Your task to perform on an android device: set an alarm Image 0: 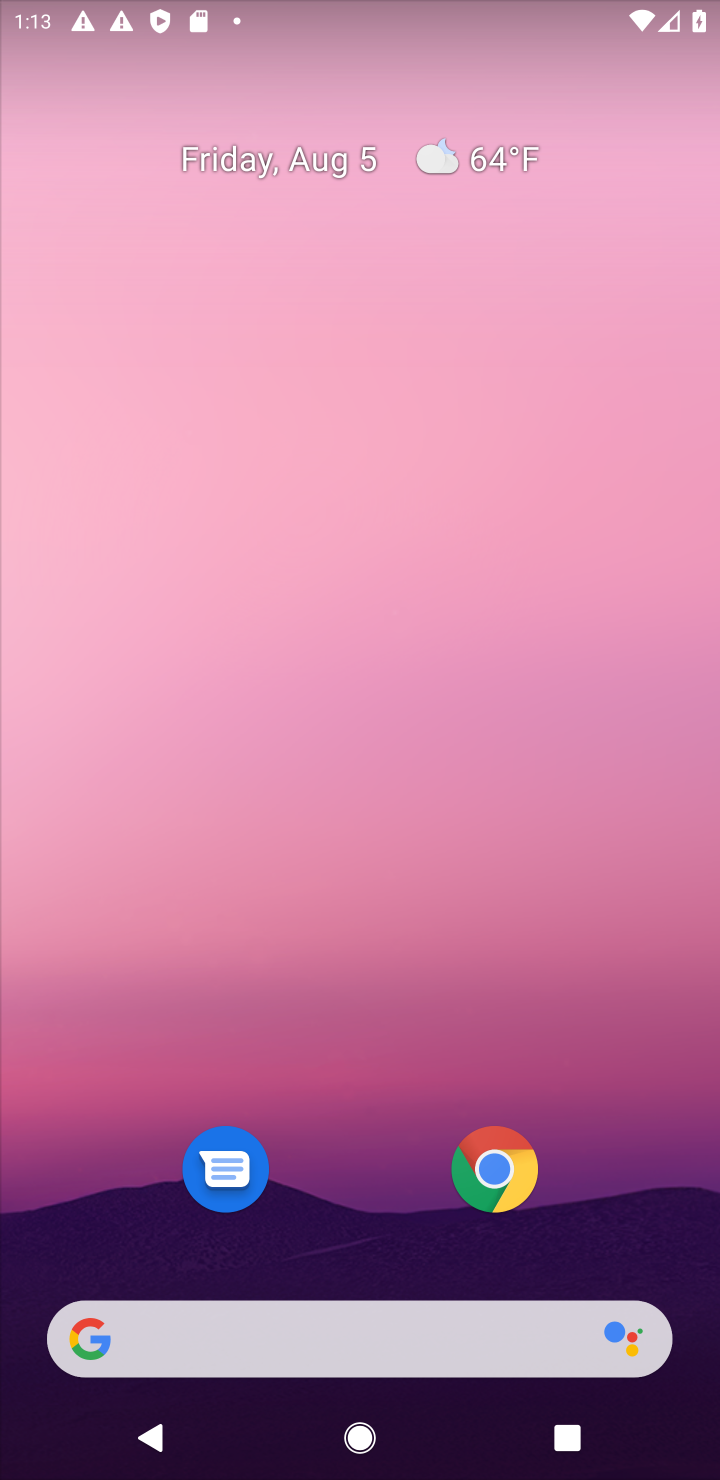
Step 0: drag from (356, 1149) to (330, 373)
Your task to perform on an android device: set an alarm Image 1: 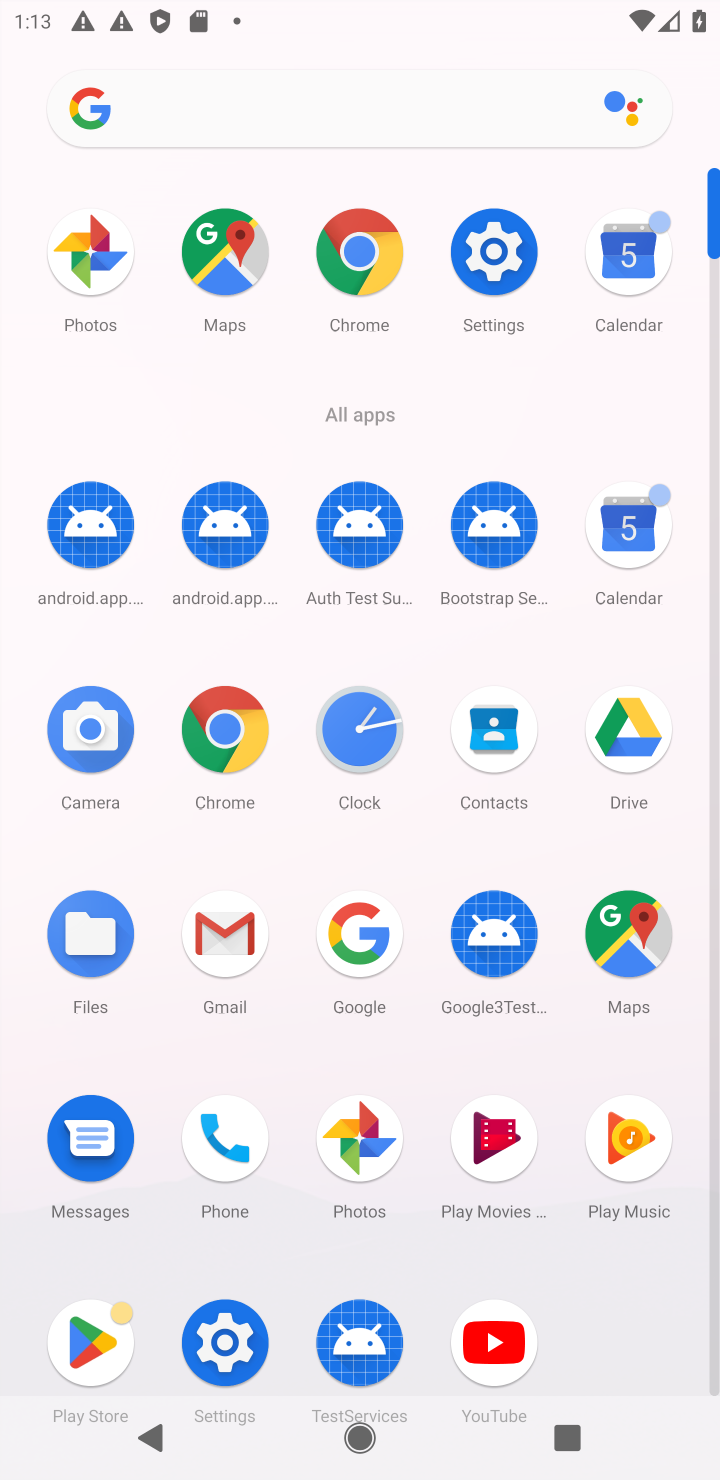
Step 1: click (344, 726)
Your task to perform on an android device: set an alarm Image 2: 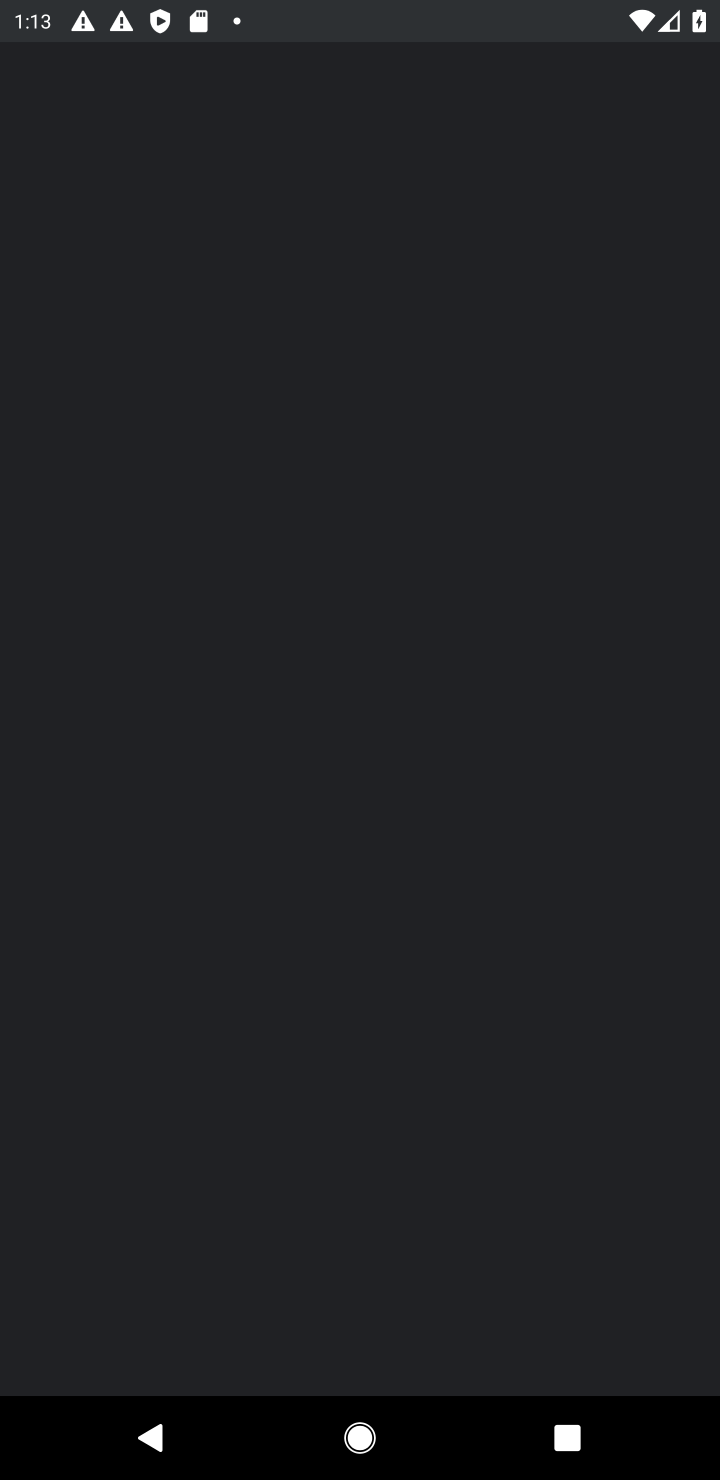
Step 2: press home button
Your task to perform on an android device: set an alarm Image 3: 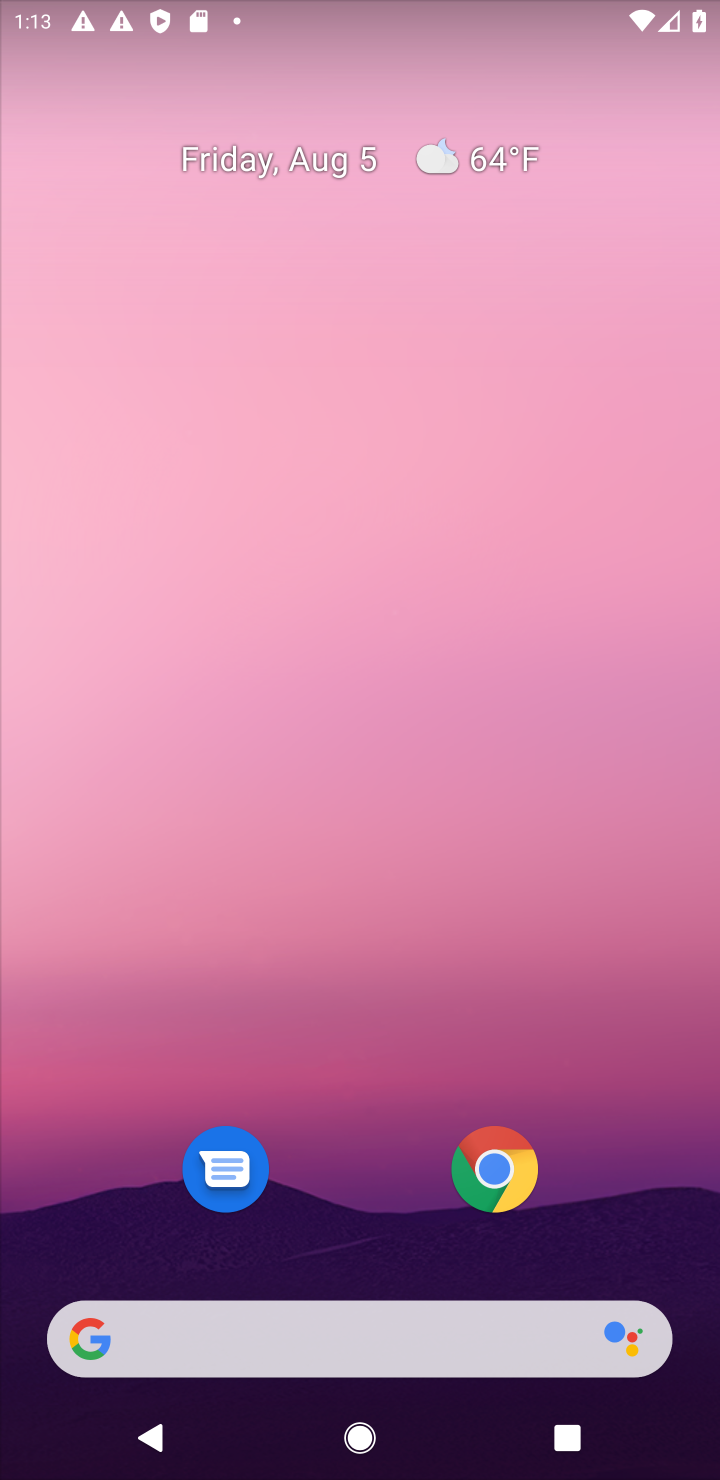
Step 3: drag from (326, 1173) to (306, 496)
Your task to perform on an android device: set an alarm Image 4: 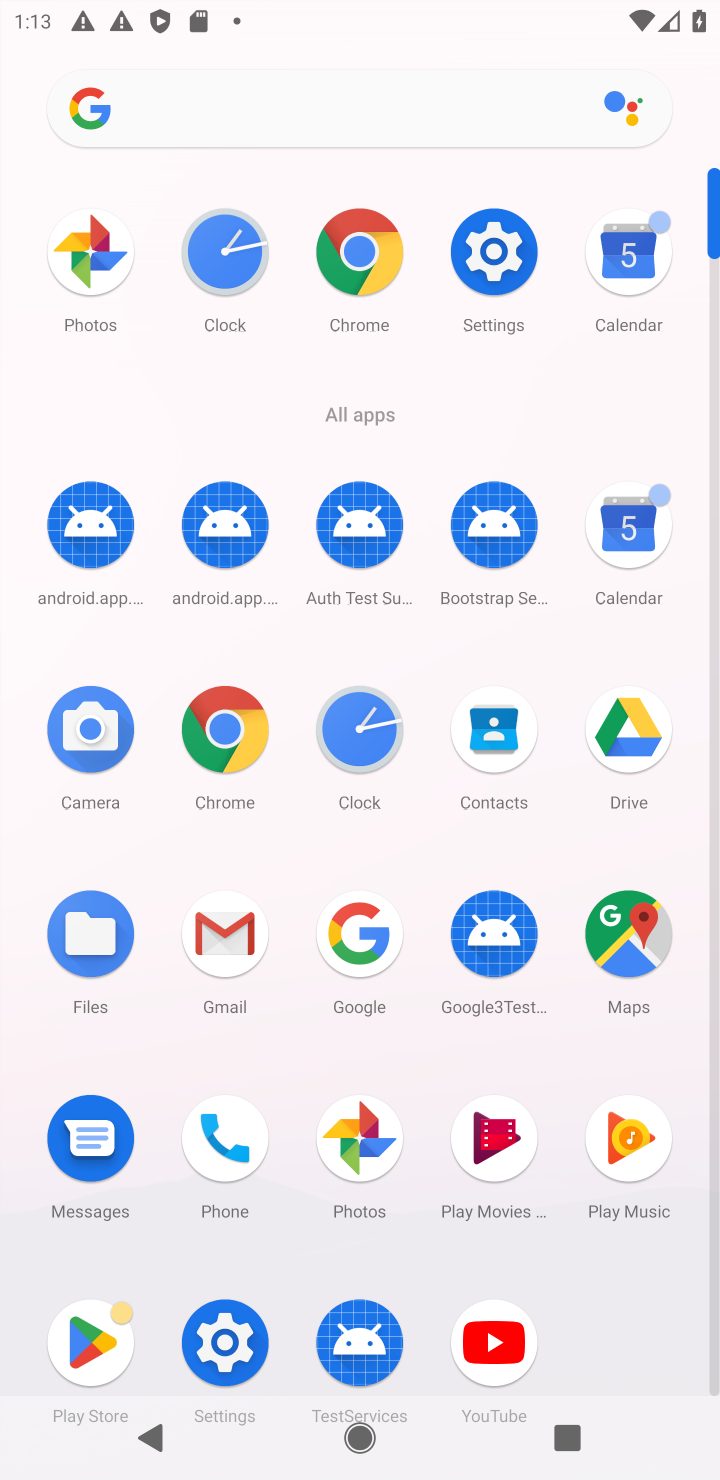
Step 4: click (369, 750)
Your task to perform on an android device: set an alarm Image 5: 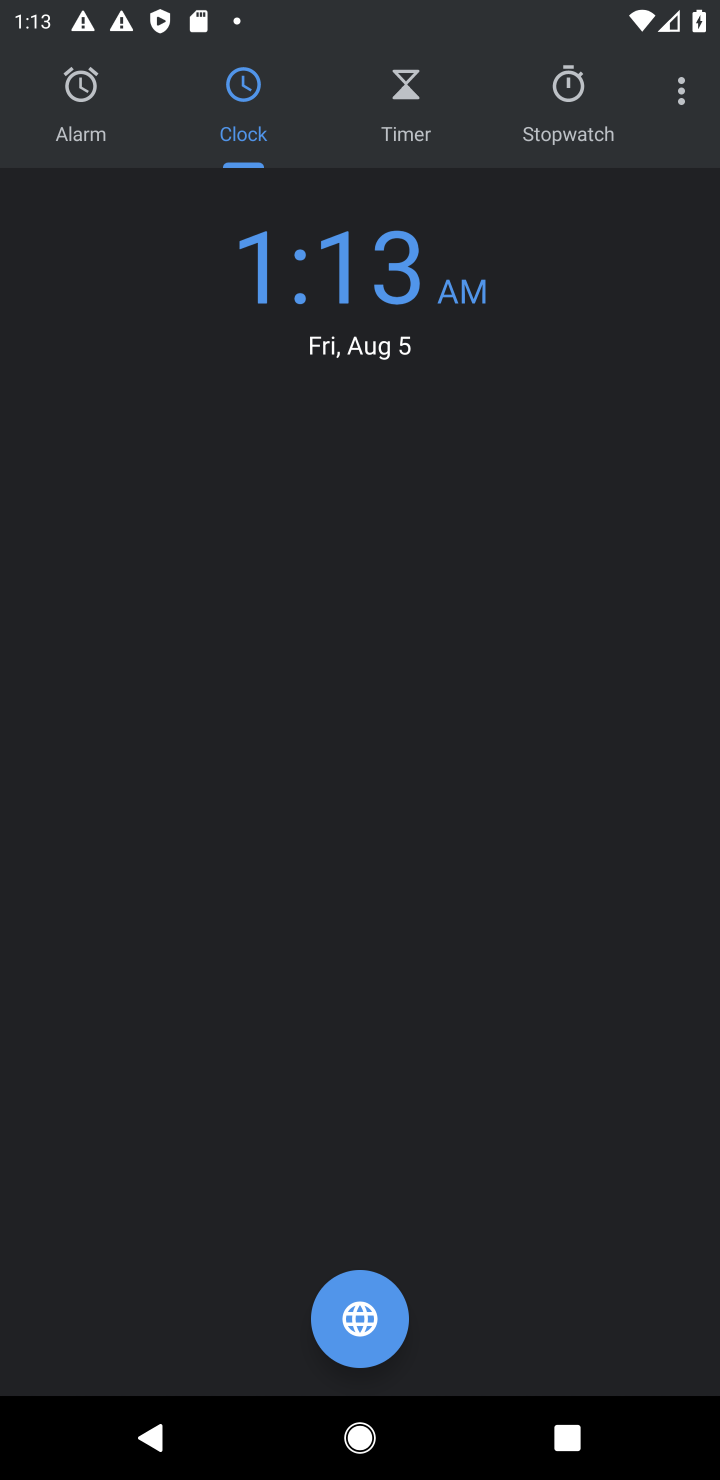
Step 5: click (76, 102)
Your task to perform on an android device: set an alarm Image 6: 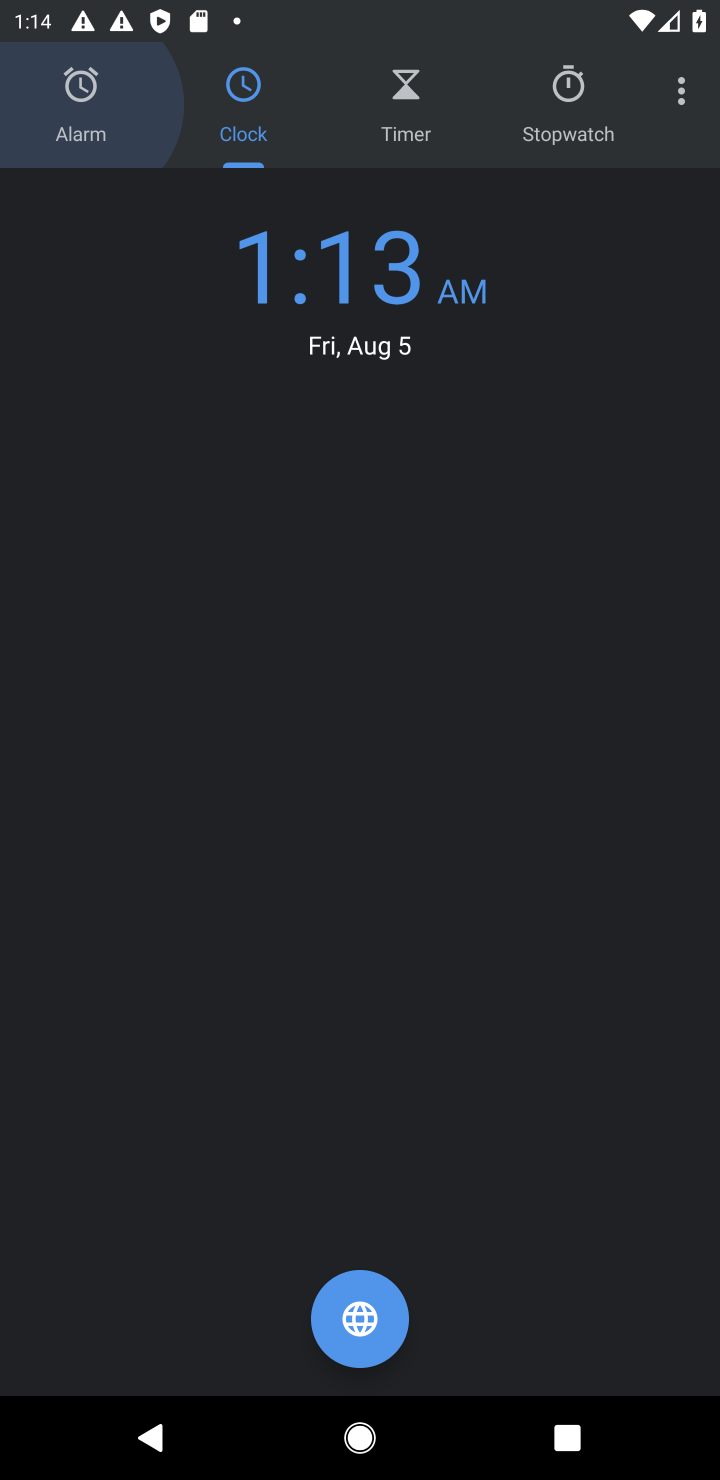
Step 6: click (84, 142)
Your task to perform on an android device: set an alarm Image 7: 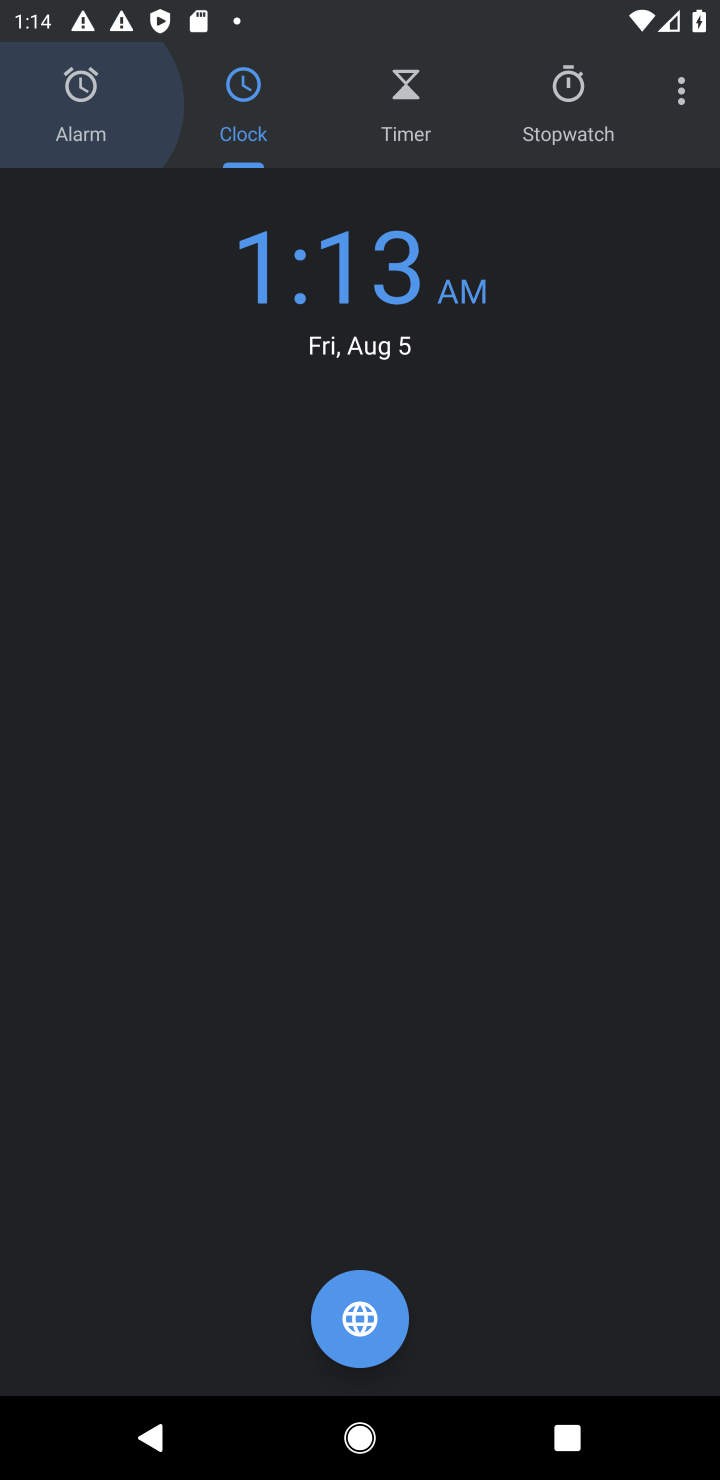
Step 7: task complete